Your task to perform on an android device: turn notification dots off Image 0: 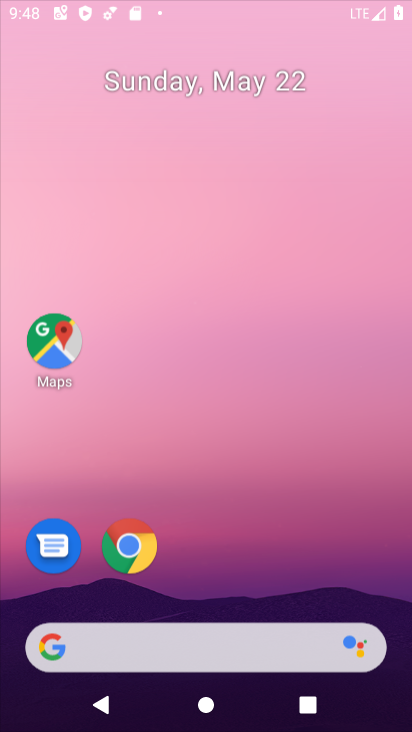
Step 0: drag from (334, 15) to (195, 25)
Your task to perform on an android device: turn notification dots off Image 1: 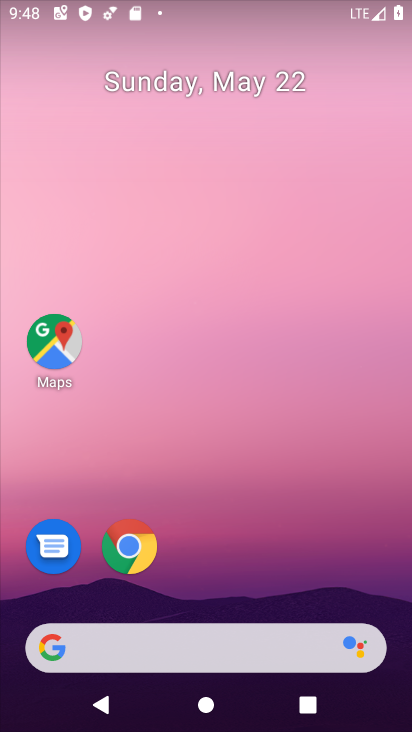
Step 1: drag from (215, 530) to (307, 0)
Your task to perform on an android device: turn notification dots off Image 2: 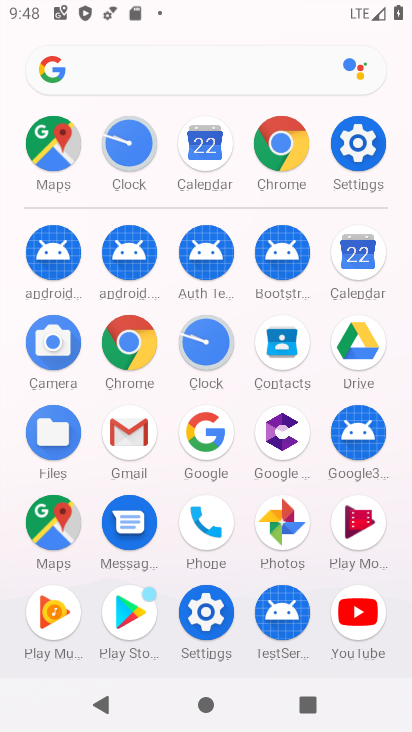
Step 2: click (108, 70)
Your task to perform on an android device: turn notification dots off Image 3: 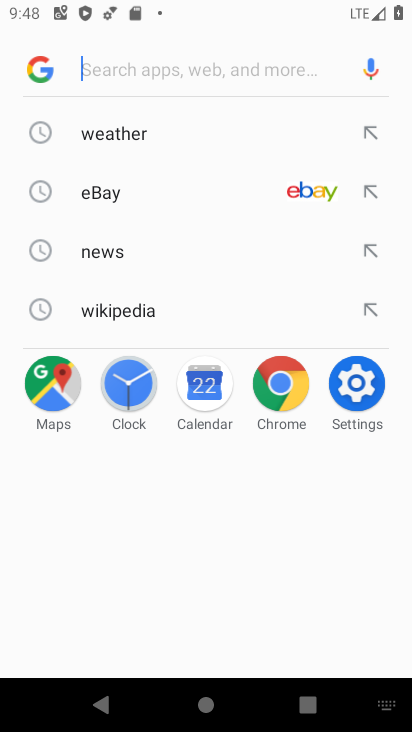
Step 3: press home button
Your task to perform on an android device: turn notification dots off Image 4: 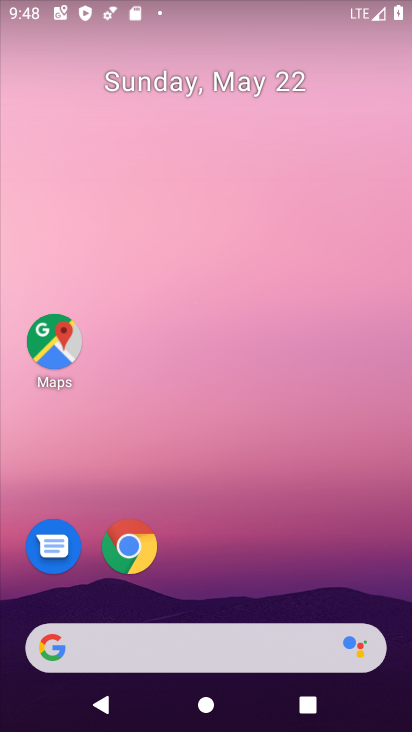
Step 4: drag from (150, 529) to (253, 59)
Your task to perform on an android device: turn notification dots off Image 5: 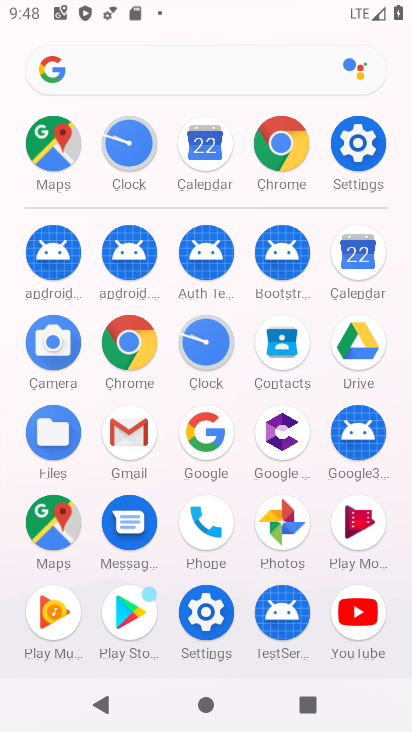
Step 5: click (341, 147)
Your task to perform on an android device: turn notification dots off Image 6: 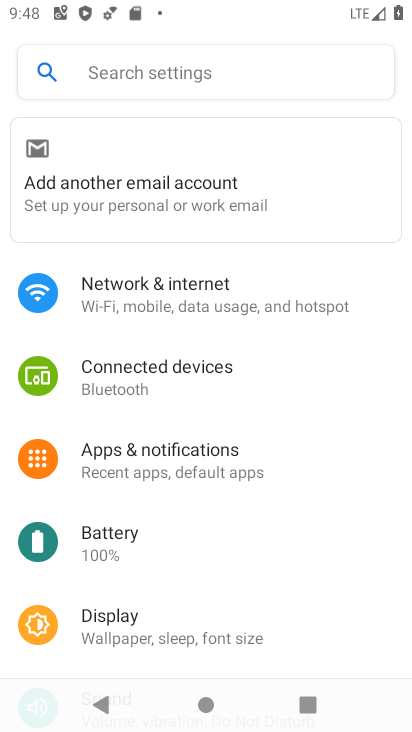
Step 6: click (146, 470)
Your task to perform on an android device: turn notification dots off Image 7: 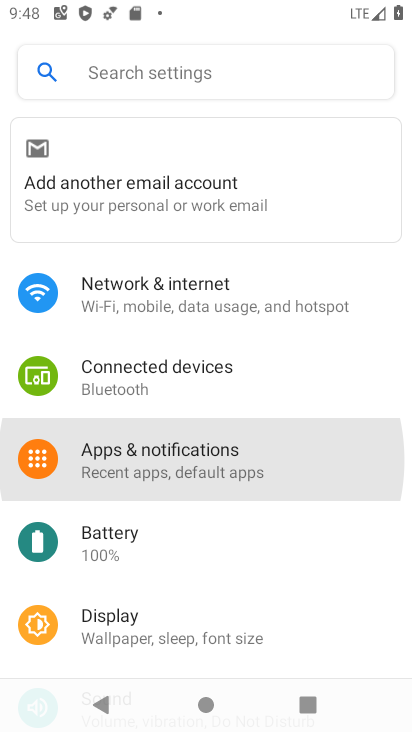
Step 7: click (146, 470)
Your task to perform on an android device: turn notification dots off Image 8: 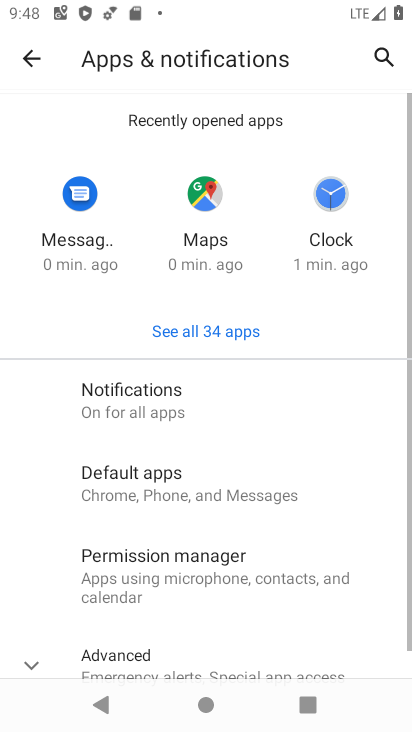
Step 8: drag from (214, 514) to (332, 98)
Your task to perform on an android device: turn notification dots off Image 9: 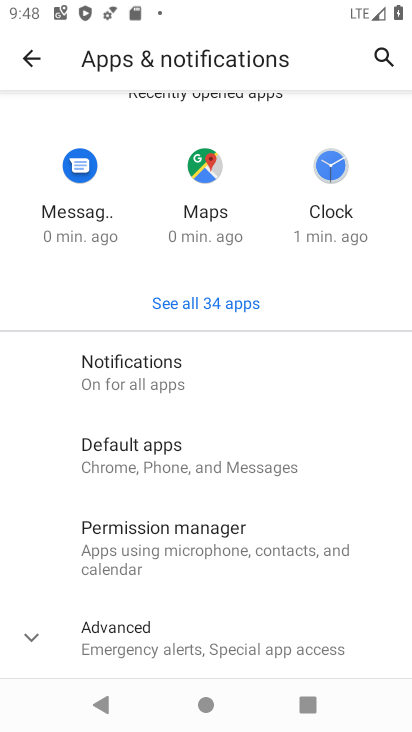
Step 9: click (175, 380)
Your task to perform on an android device: turn notification dots off Image 10: 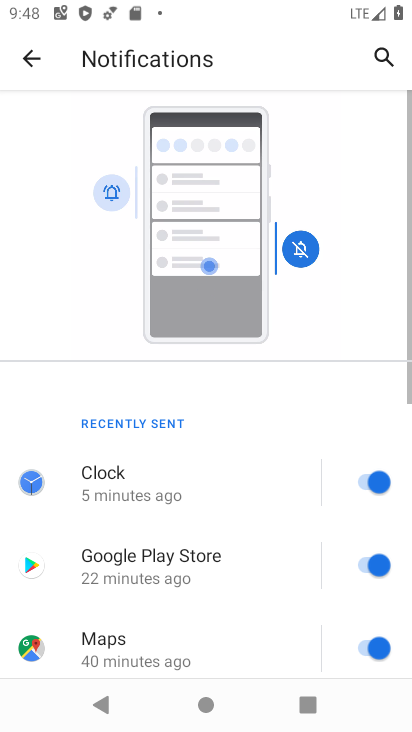
Step 10: drag from (205, 588) to (374, 59)
Your task to perform on an android device: turn notification dots off Image 11: 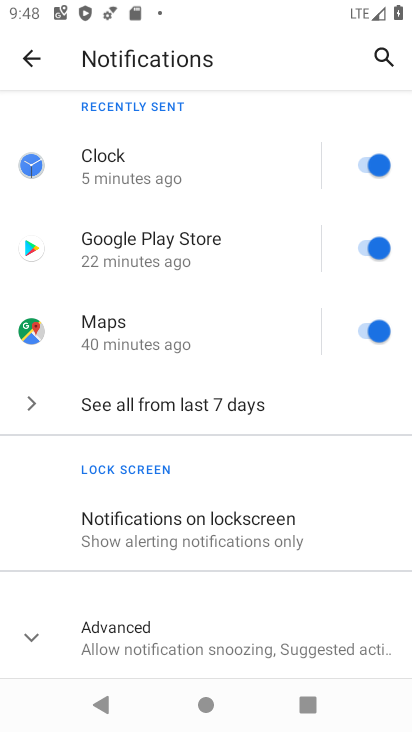
Step 11: drag from (157, 621) to (246, 255)
Your task to perform on an android device: turn notification dots off Image 12: 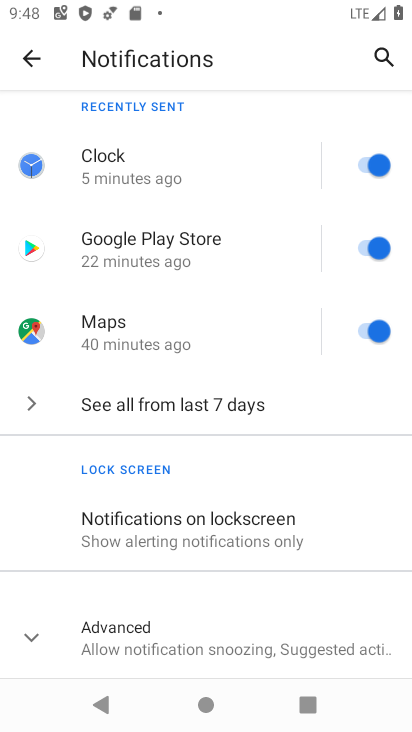
Step 12: click (158, 644)
Your task to perform on an android device: turn notification dots off Image 13: 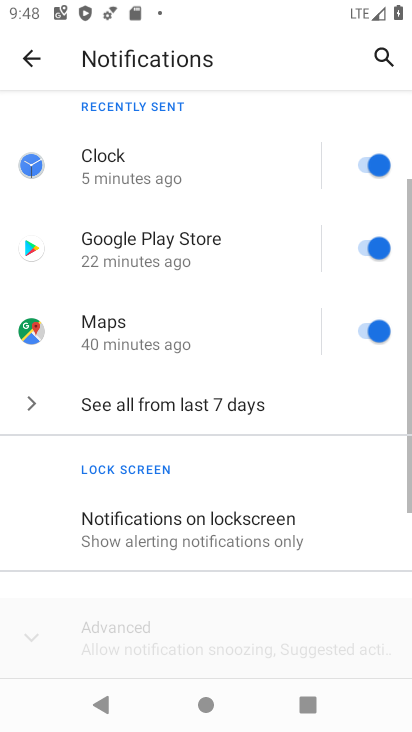
Step 13: drag from (211, 478) to (381, 4)
Your task to perform on an android device: turn notification dots off Image 14: 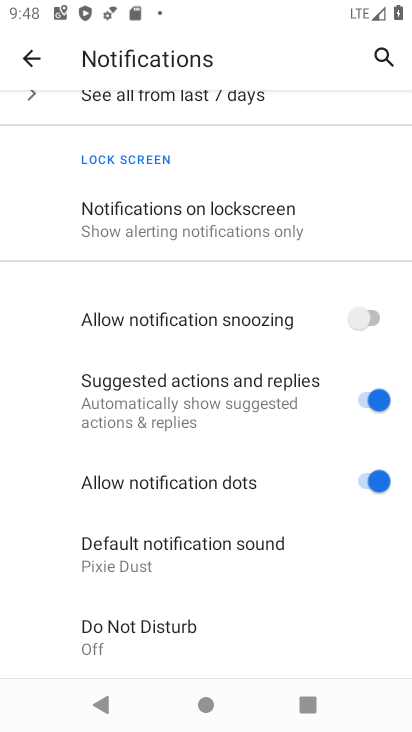
Step 14: click (358, 478)
Your task to perform on an android device: turn notification dots off Image 15: 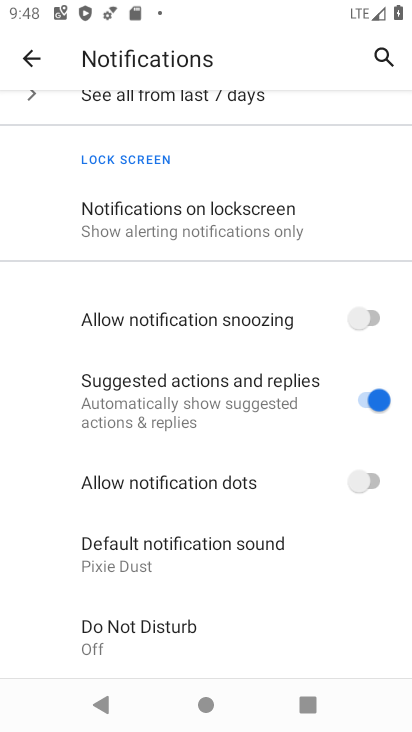
Step 15: task complete